Your task to perform on an android device: Open Maps and search for coffee Image 0: 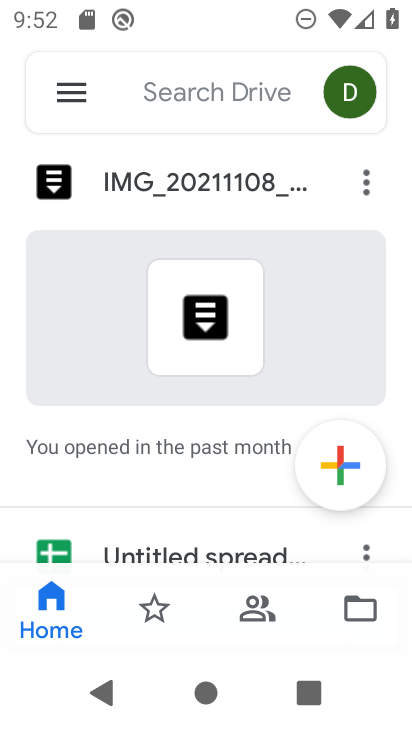
Step 0: press home button
Your task to perform on an android device: Open Maps and search for coffee Image 1: 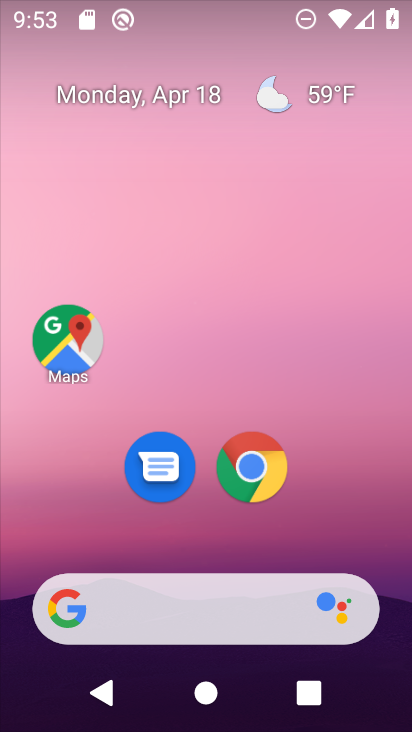
Step 1: click (65, 334)
Your task to perform on an android device: Open Maps and search for coffee Image 2: 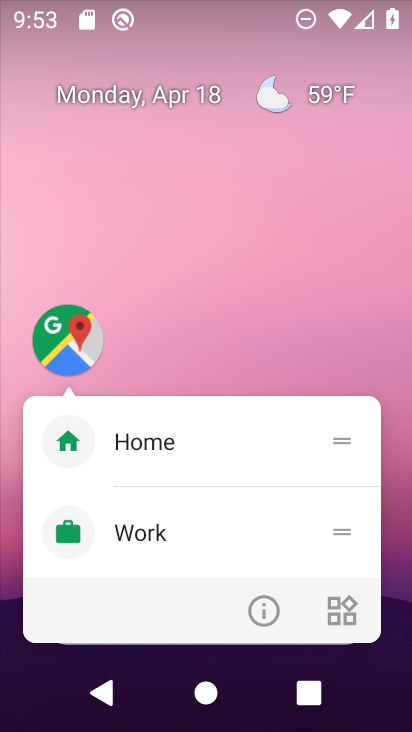
Step 2: click (73, 341)
Your task to perform on an android device: Open Maps and search for coffee Image 3: 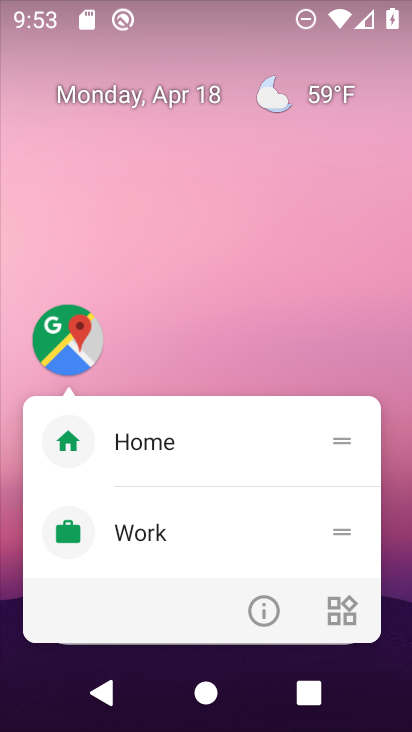
Step 3: click (70, 334)
Your task to perform on an android device: Open Maps and search for coffee Image 4: 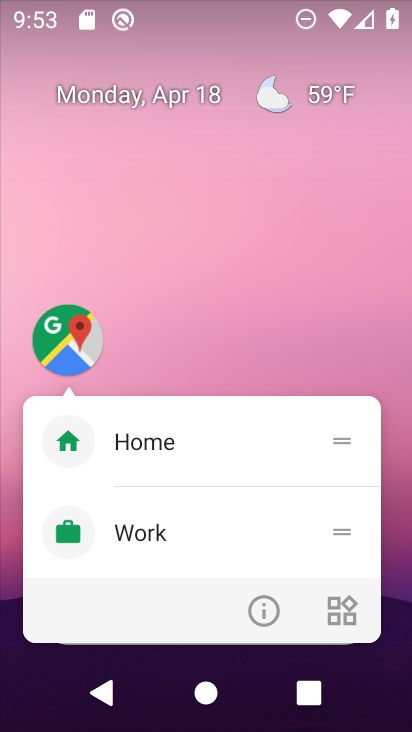
Step 4: click (71, 333)
Your task to perform on an android device: Open Maps and search for coffee Image 5: 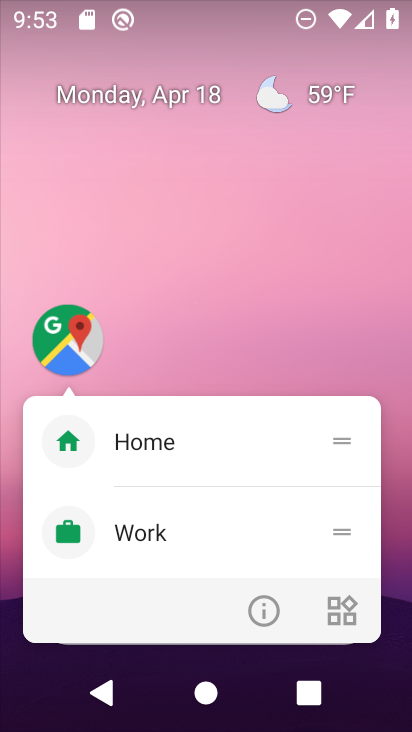
Step 5: click (71, 333)
Your task to perform on an android device: Open Maps and search for coffee Image 6: 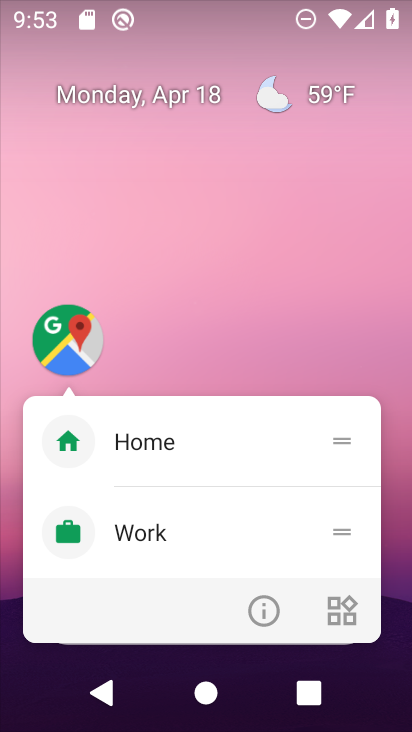
Step 6: click (71, 321)
Your task to perform on an android device: Open Maps and search for coffee Image 7: 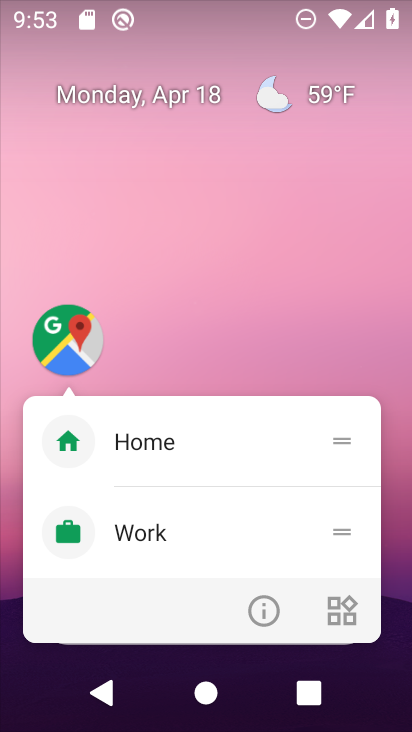
Step 7: click (66, 331)
Your task to perform on an android device: Open Maps and search for coffee Image 8: 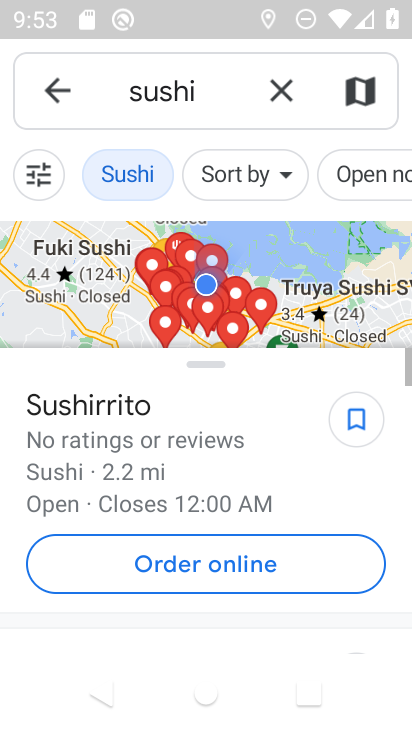
Step 8: click (292, 82)
Your task to perform on an android device: Open Maps and search for coffee Image 9: 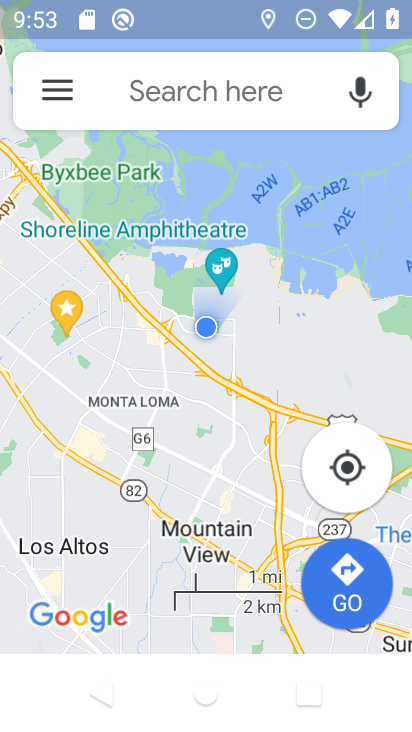
Step 9: click (182, 86)
Your task to perform on an android device: Open Maps and search for coffee Image 10: 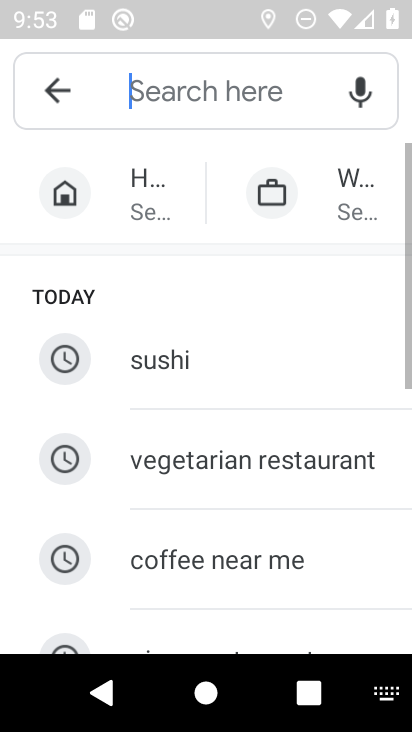
Step 10: drag from (184, 553) to (264, 124)
Your task to perform on an android device: Open Maps and search for coffee Image 11: 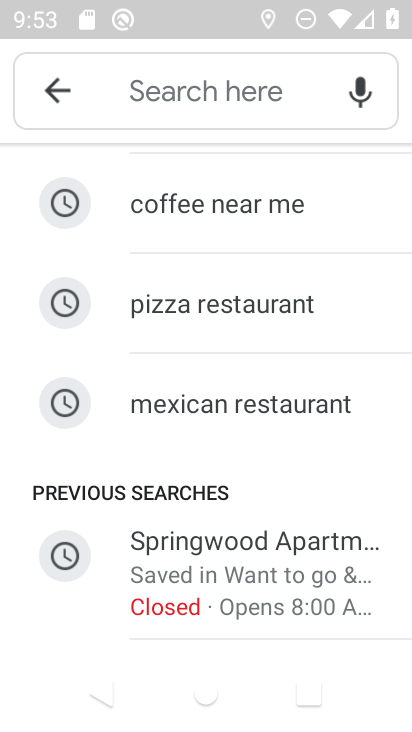
Step 11: click (178, 203)
Your task to perform on an android device: Open Maps and search for coffee Image 12: 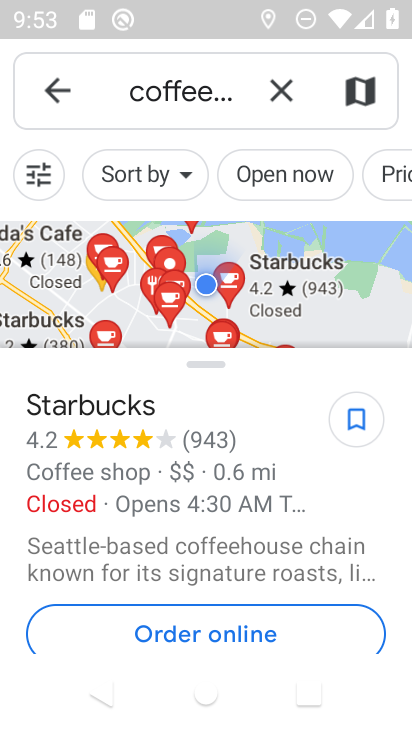
Step 12: task complete